Your task to perform on an android device: open app "VLC for Android" (install if not already installed) Image 0: 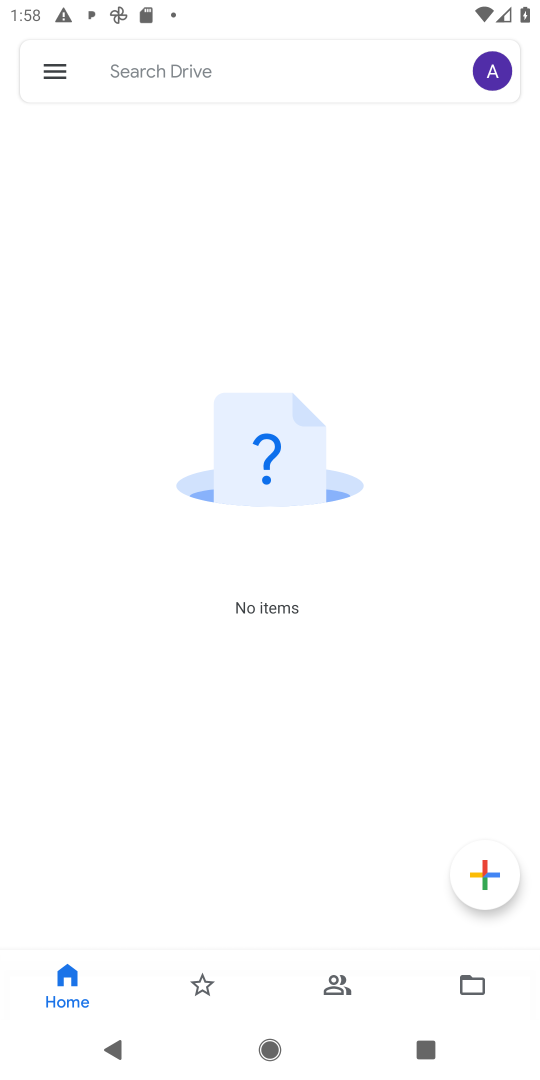
Step 0: press home button
Your task to perform on an android device: open app "VLC for Android" (install if not already installed) Image 1: 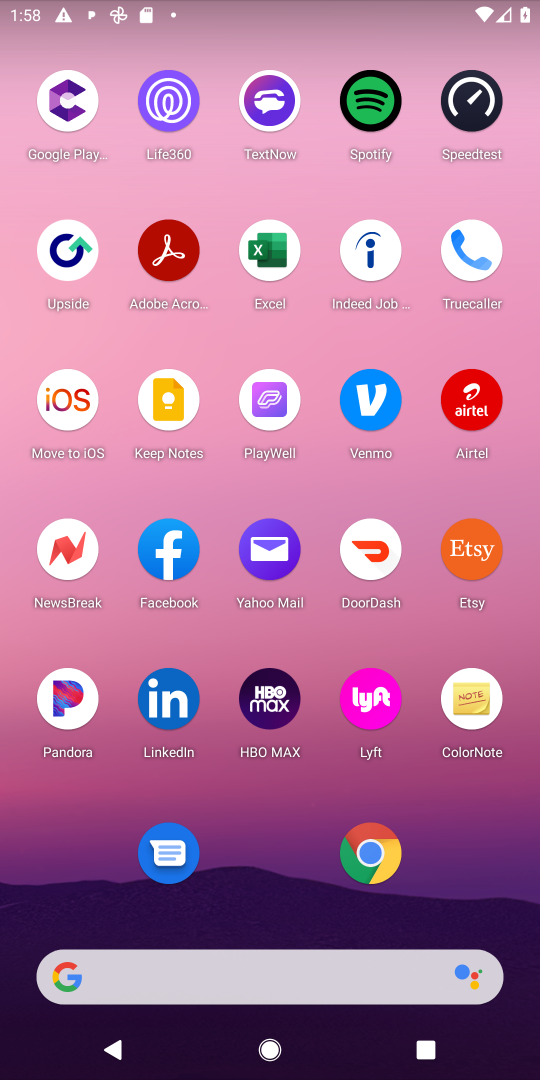
Step 1: drag from (240, 910) to (258, 236)
Your task to perform on an android device: open app "VLC for Android" (install if not already installed) Image 2: 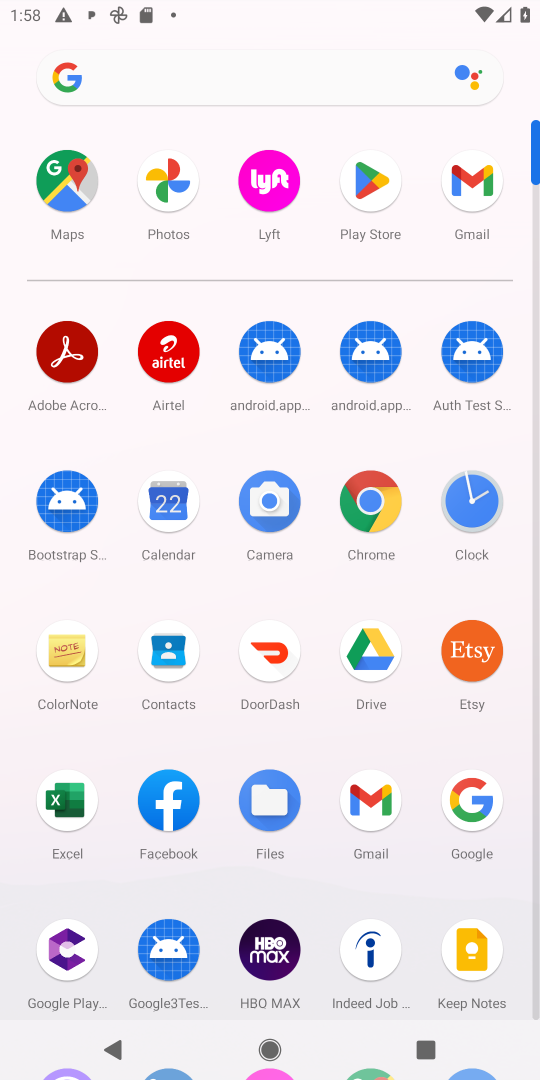
Step 2: click (360, 175)
Your task to perform on an android device: open app "VLC for Android" (install if not already installed) Image 3: 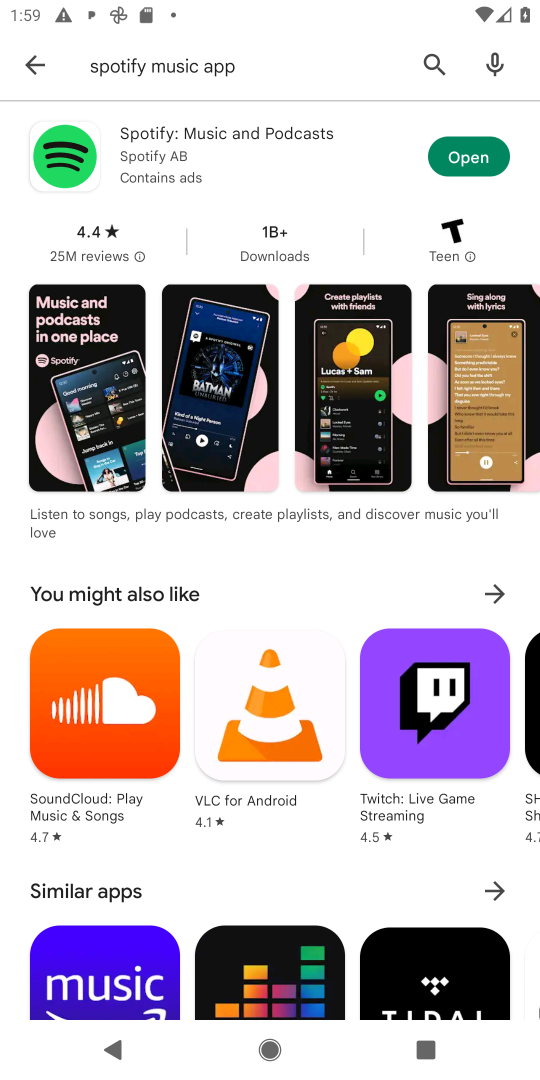
Step 3: click (25, 63)
Your task to perform on an android device: open app "VLC for Android" (install if not already installed) Image 4: 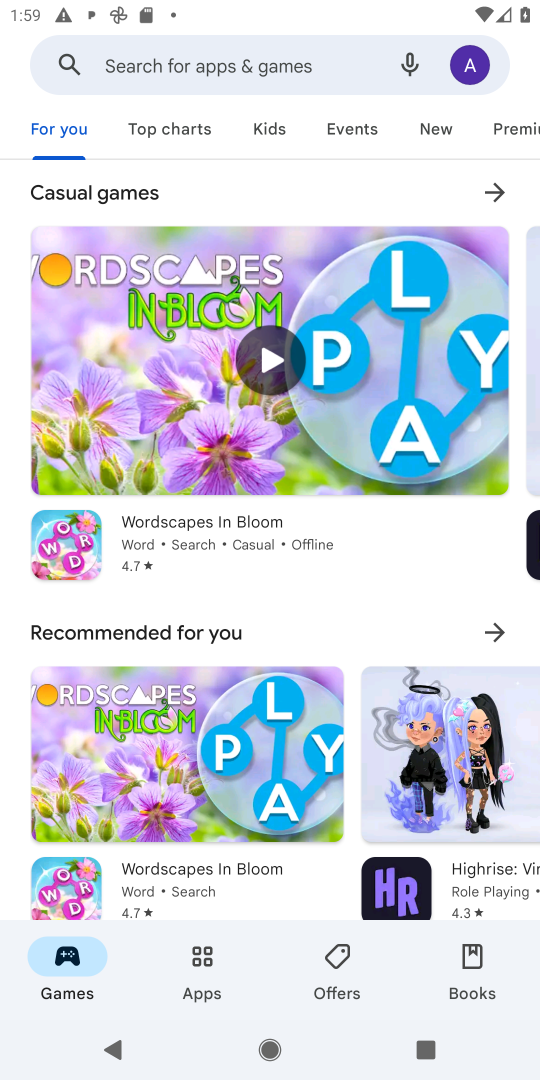
Step 4: click (277, 54)
Your task to perform on an android device: open app "VLC for Android" (install if not already installed) Image 5: 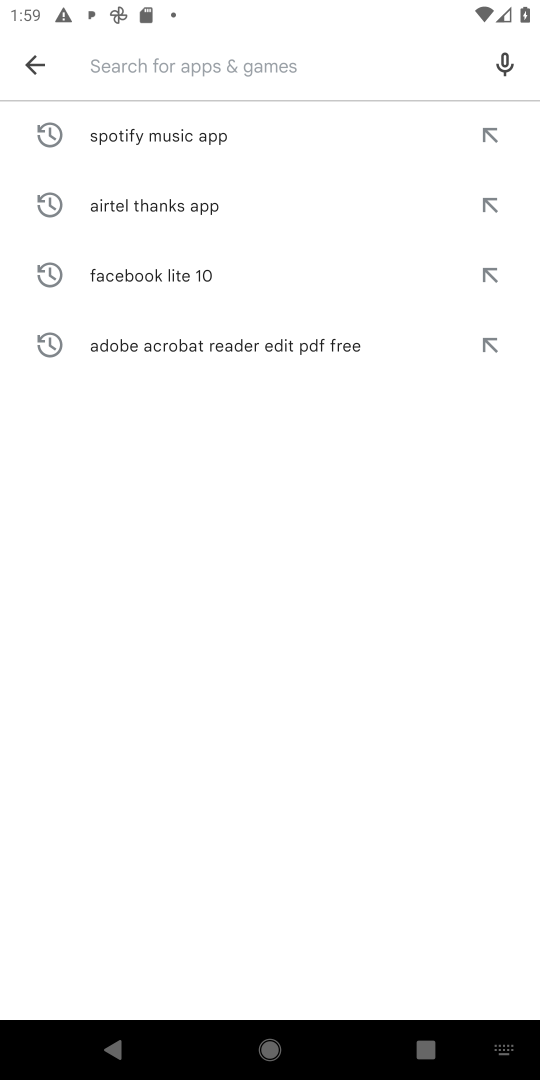
Step 5: type "VLC for Android "
Your task to perform on an android device: open app "VLC for Android" (install if not already installed) Image 6: 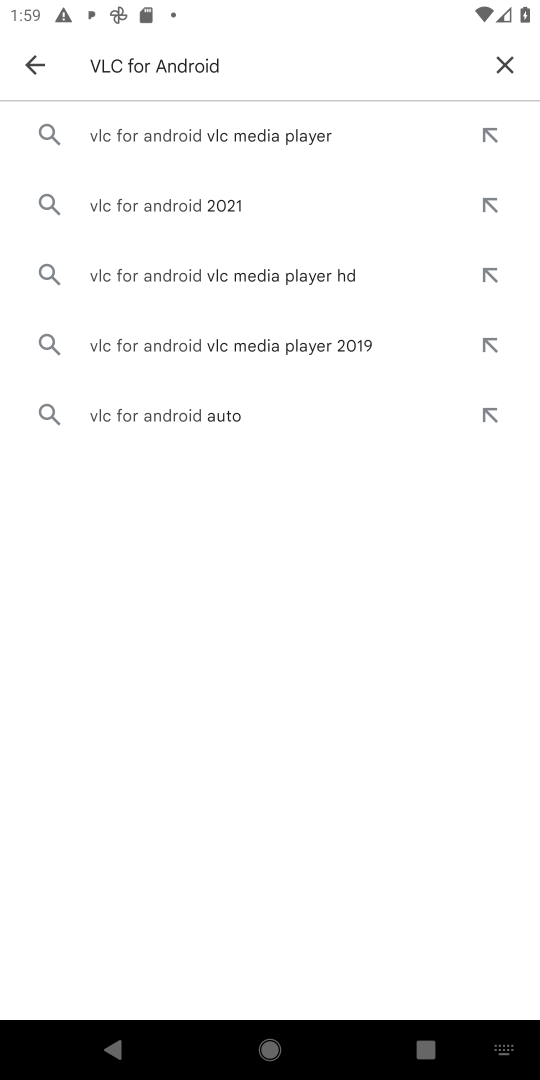
Step 6: click (222, 220)
Your task to perform on an android device: open app "VLC for Android" (install if not already installed) Image 7: 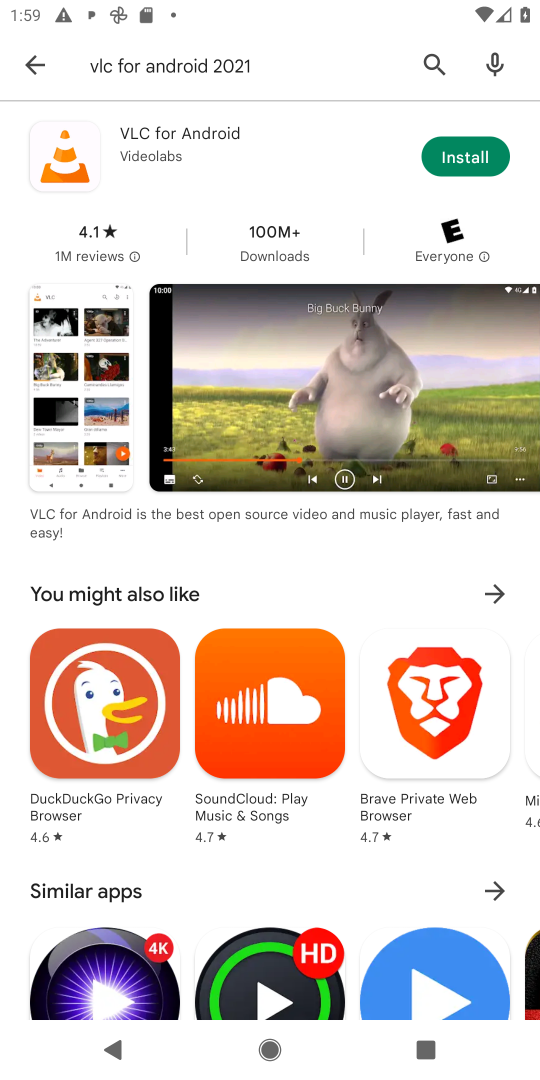
Step 7: click (463, 147)
Your task to perform on an android device: open app "VLC for Android" (install if not already installed) Image 8: 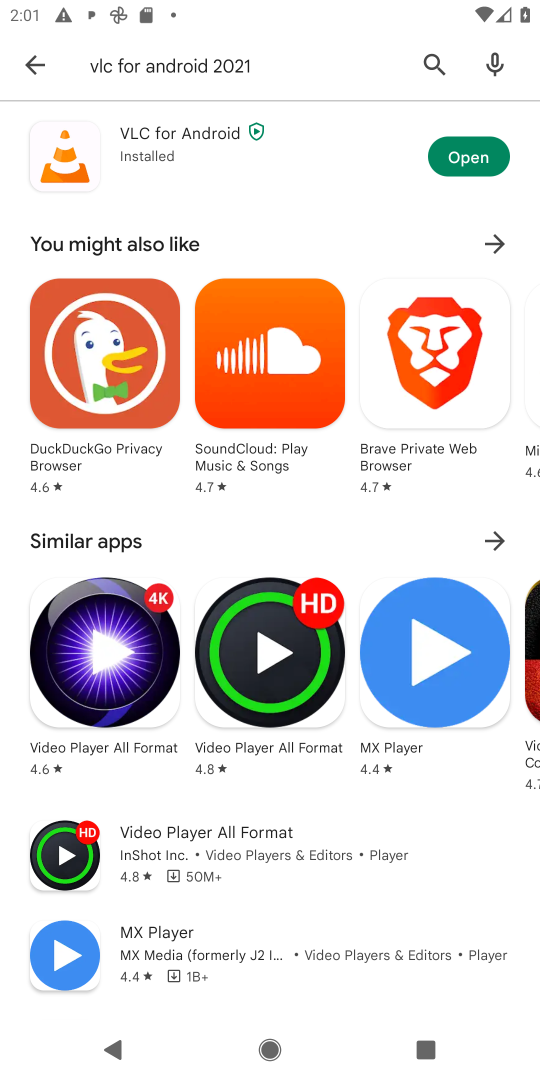
Step 8: click (442, 148)
Your task to perform on an android device: open app "VLC for Android" (install if not already installed) Image 9: 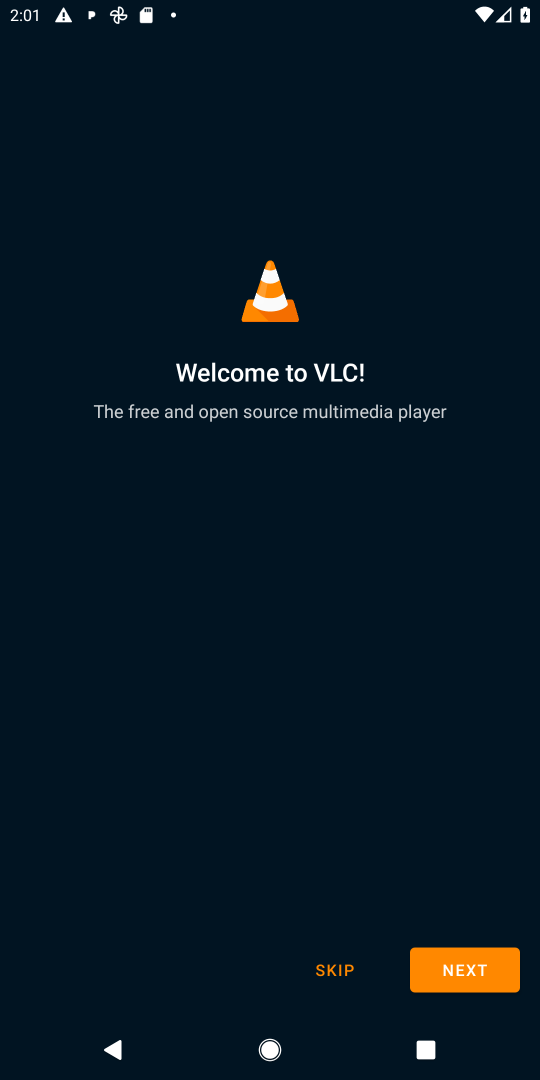
Step 9: task complete